Your task to perform on an android device: Go to Yahoo.com Image 0: 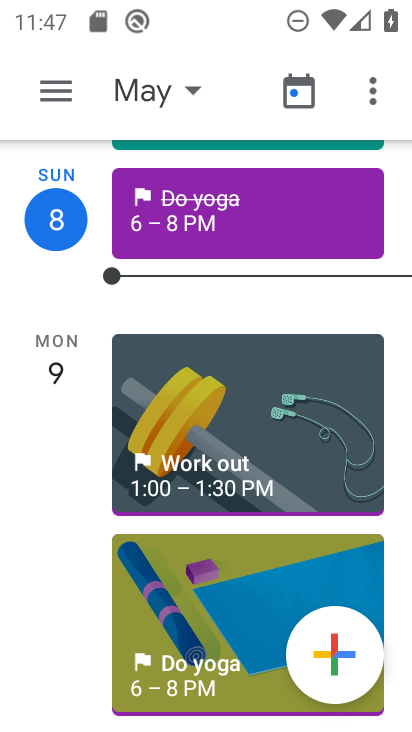
Step 0: press home button
Your task to perform on an android device: Go to Yahoo.com Image 1: 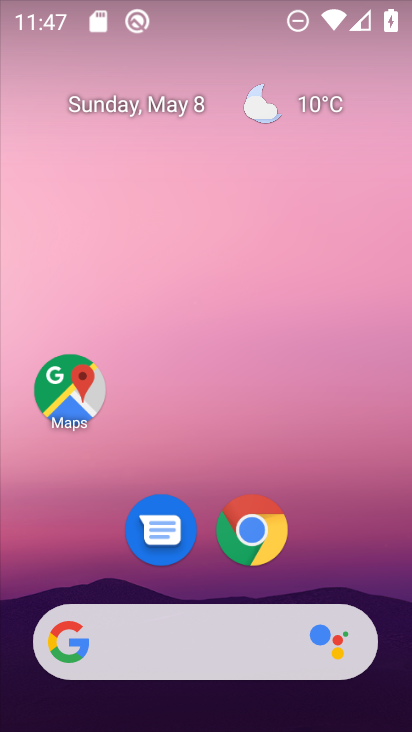
Step 1: click (245, 533)
Your task to perform on an android device: Go to Yahoo.com Image 2: 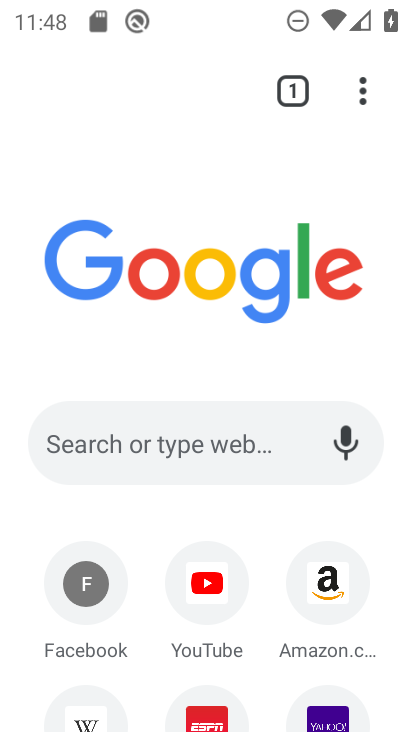
Step 2: drag from (161, 511) to (228, 113)
Your task to perform on an android device: Go to Yahoo.com Image 3: 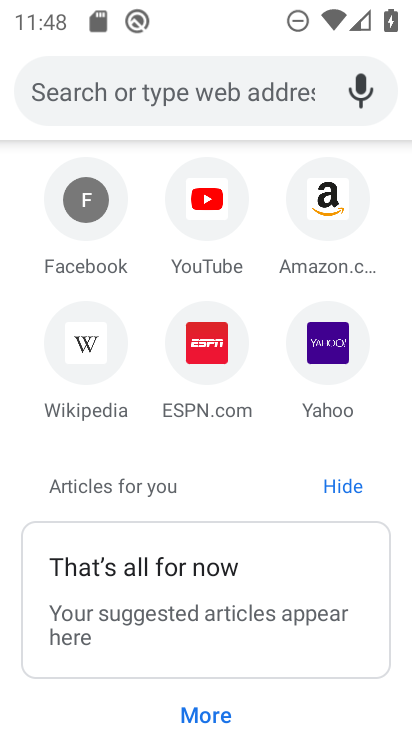
Step 3: click (338, 334)
Your task to perform on an android device: Go to Yahoo.com Image 4: 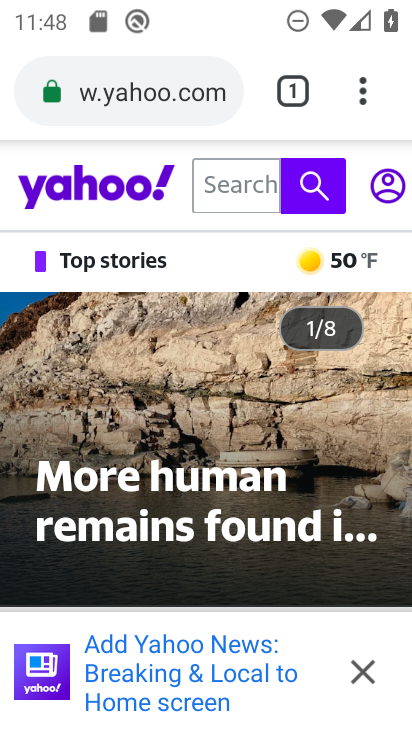
Step 4: task complete